Your task to perform on an android device: turn on notifications settings in the gmail app Image 0: 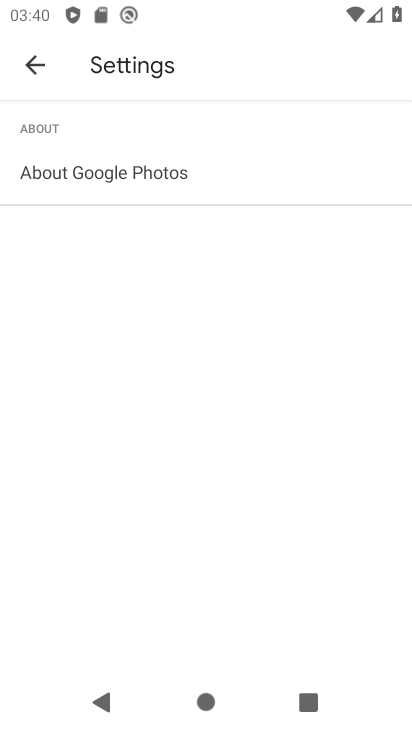
Step 0: press home button
Your task to perform on an android device: turn on notifications settings in the gmail app Image 1: 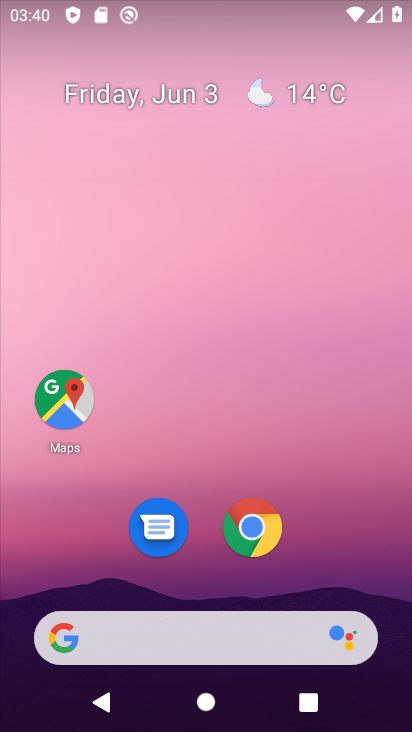
Step 1: drag from (335, 568) to (258, 6)
Your task to perform on an android device: turn on notifications settings in the gmail app Image 2: 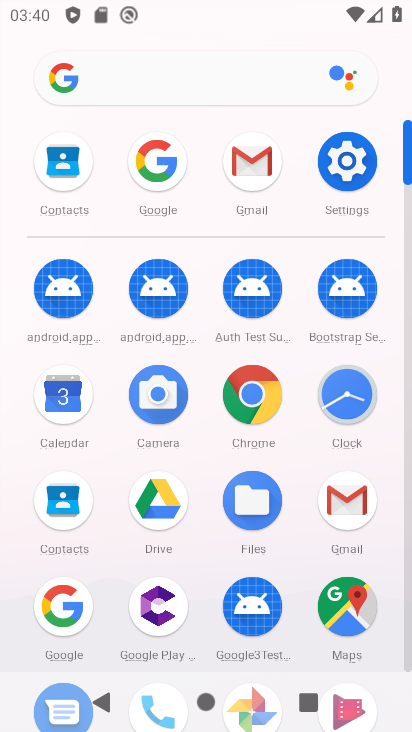
Step 2: click (254, 160)
Your task to perform on an android device: turn on notifications settings in the gmail app Image 3: 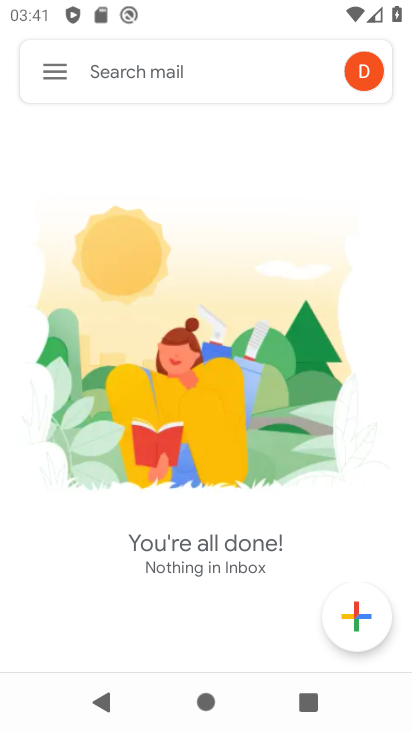
Step 3: click (54, 69)
Your task to perform on an android device: turn on notifications settings in the gmail app Image 4: 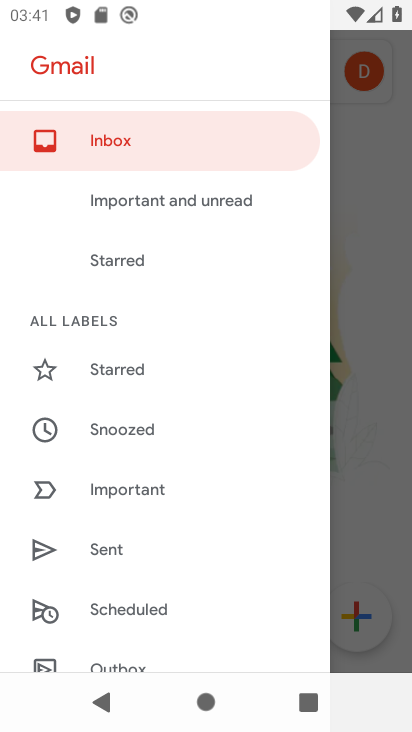
Step 4: drag from (127, 403) to (178, 288)
Your task to perform on an android device: turn on notifications settings in the gmail app Image 5: 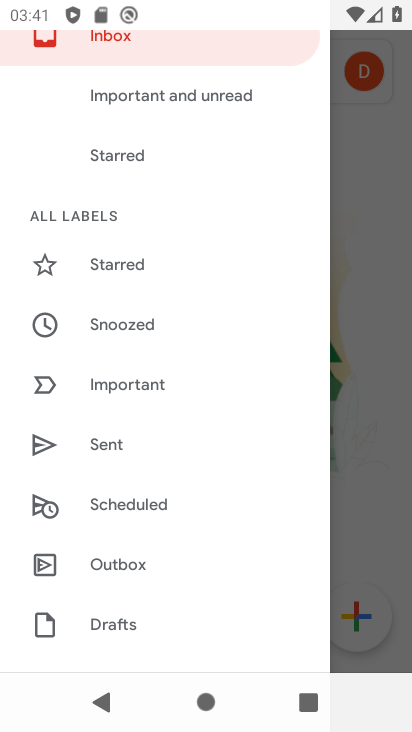
Step 5: drag from (110, 419) to (126, 316)
Your task to perform on an android device: turn on notifications settings in the gmail app Image 6: 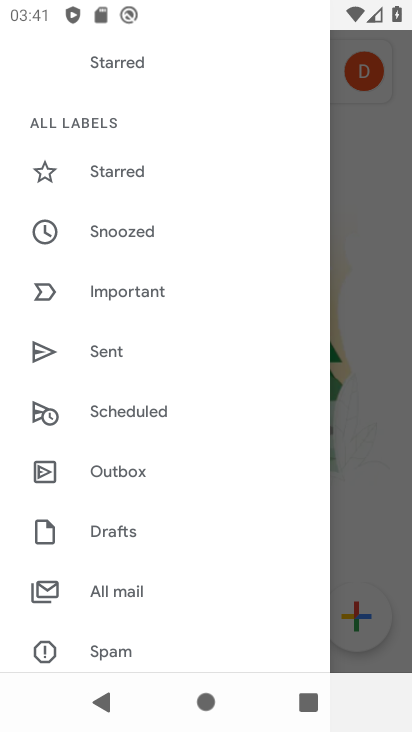
Step 6: drag from (130, 441) to (151, 345)
Your task to perform on an android device: turn on notifications settings in the gmail app Image 7: 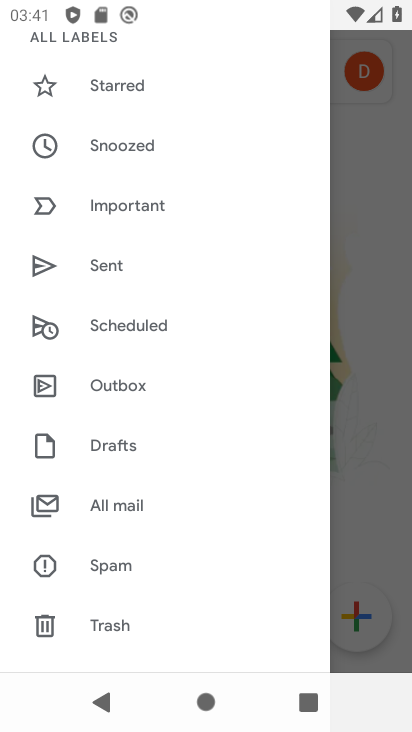
Step 7: drag from (113, 419) to (130, 316)
Your task to perform on an android device: turn on notifications settings in the gmail app Image 8: 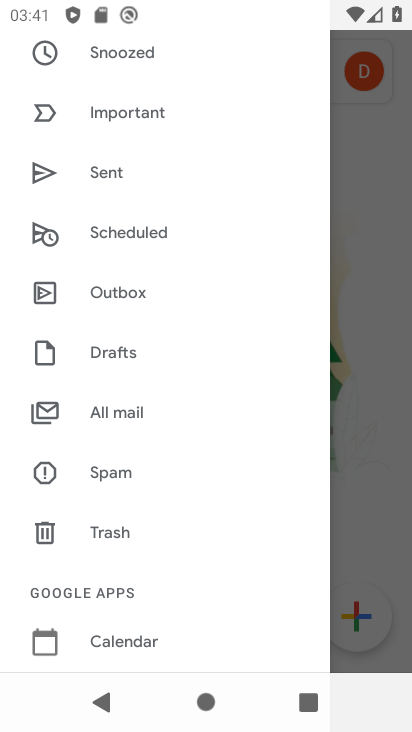
Step 8: drag from (112, 323) to (150, 188)
Your task to perform on an android device: turn on notifications settings in the gmail app Image 9: 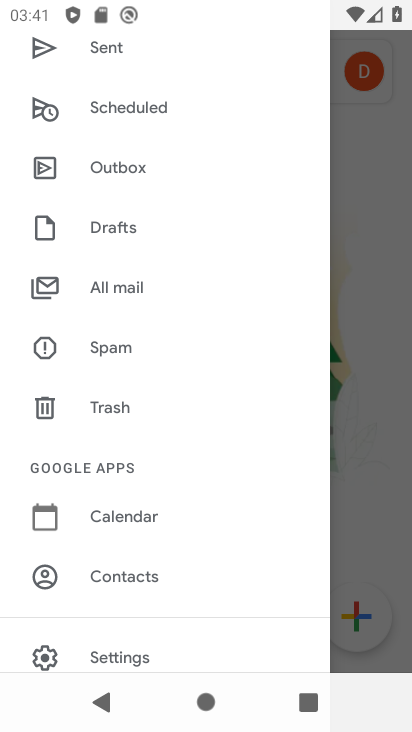
Step 9: drag from (107, 318) to (164, 202)
Your task to perform on an android device: turn on notifications settings in the gmail app Image 10: 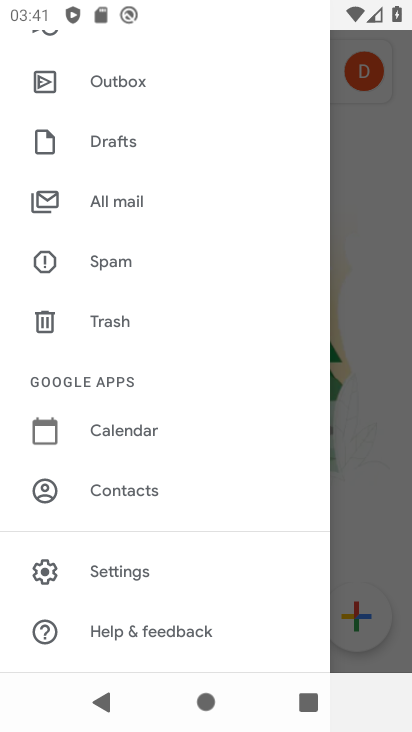
Step 10: click (129, 568)
Your task to perform on an android device: turn on notifications settings in the gmail app Image 11: 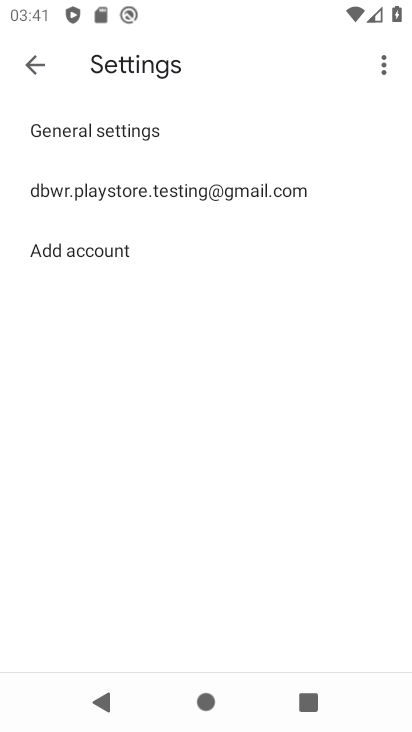
Step 11: click (193, 191)
Your task to perform on an android device: turn on notifications settings in the gmail app Image 12: 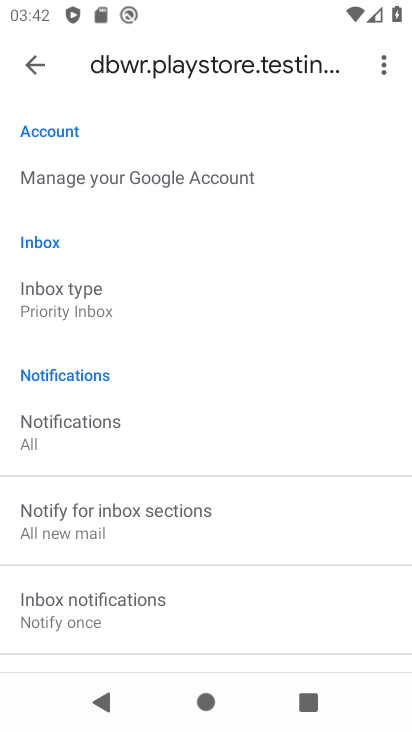
Step 12: drag from (83, 341) to (114, 227)
Your task to perform on an android device: turn on notifications settings in the gmail app Image 13: 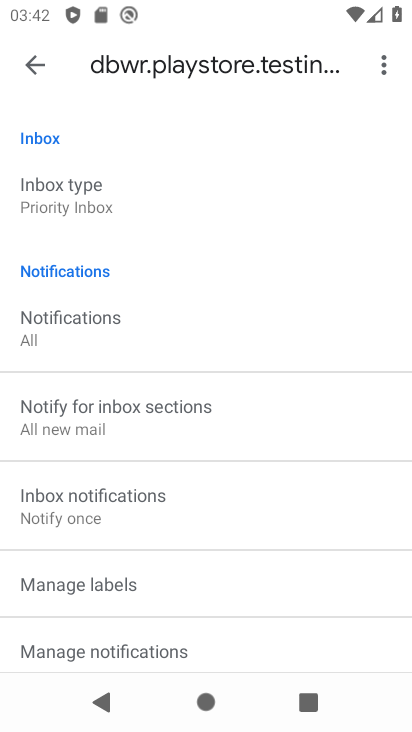
Step 13: drag from (79, 450) to (132, 348)
Your task to perform on an android device: turn on notifications settings in the gmail app Image 14: 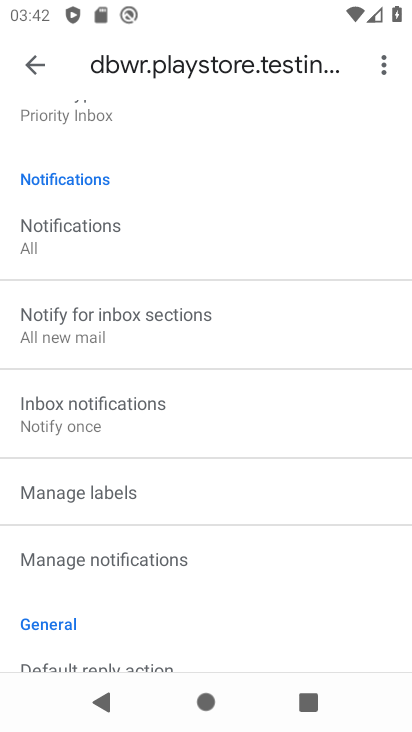
Step 14: click (130, 562)
Your task to perform on an android device: turn on notifications settings in the gmail app Image 15: 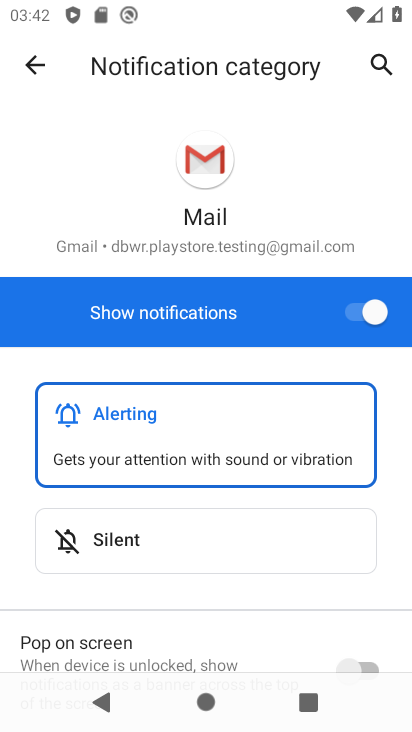
Step 15: task complete